Your task to perform on an android device: Open location settings Image 0: 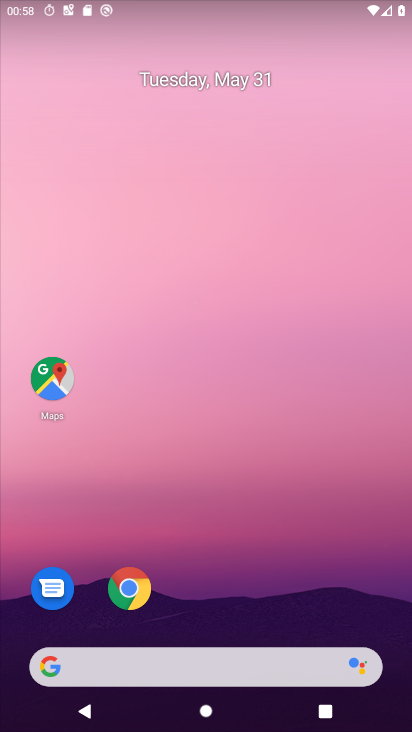
Step 0: drag from (155, 447) to (159, 149)
Your task to perform on an android device: Open location settings Image 1: 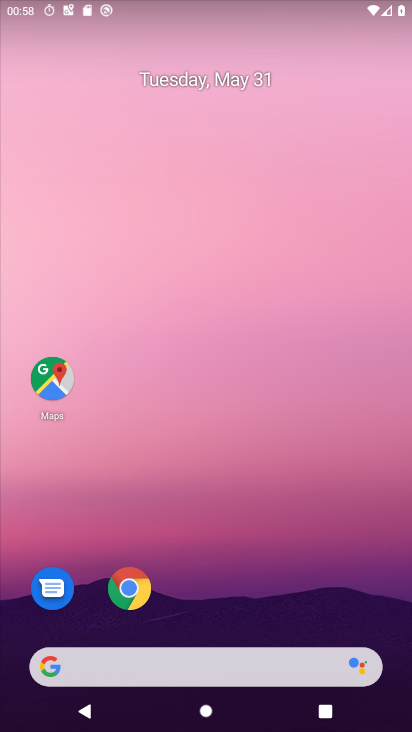
Step 1: drag from (244, 626) to (272, 7)
Your task to perform on an android device: Open location settings Image 2: 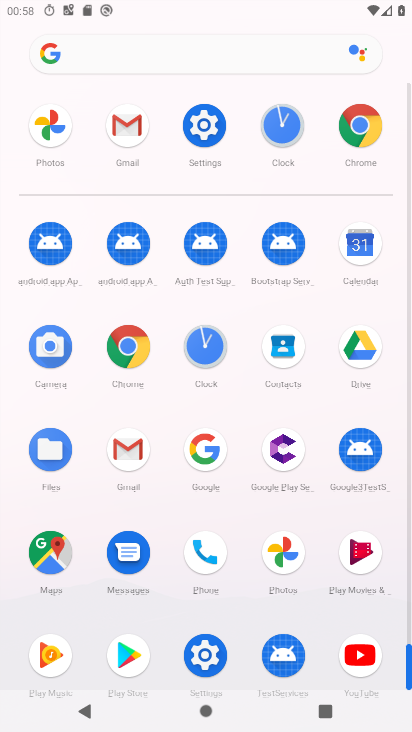
Step 2: click (211, 127)
Your task to perform on an android device: Open location settings Image 3: 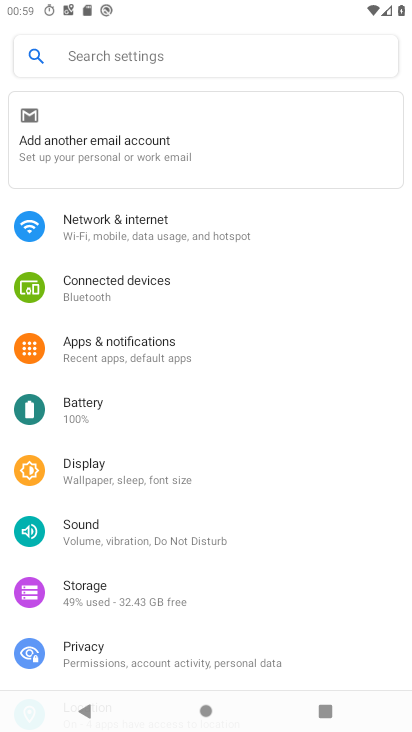
Step 3: drag from (153, 525) to (205, 172)
Your task to perform on an android device: Open location settings Image 4: 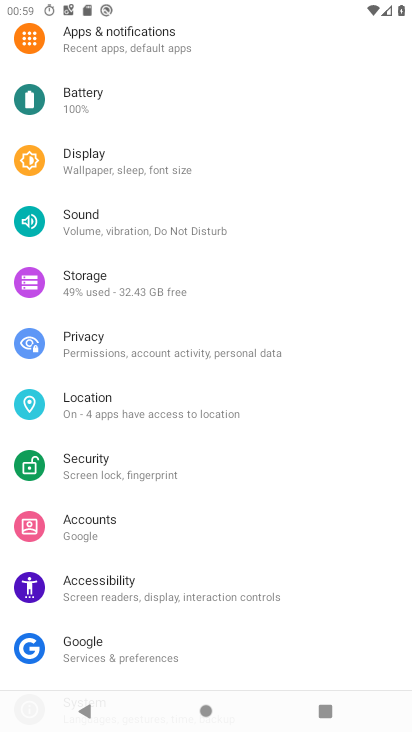
Step 4: click (125, 409)
Your task to perform on an android device: Open location settings Image 5: 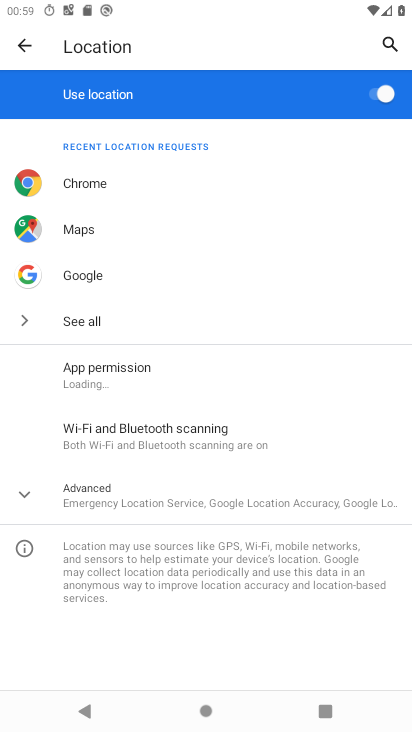
Step 5: task complete